Your task to perform on an android device: What is the recent news? Image 0: 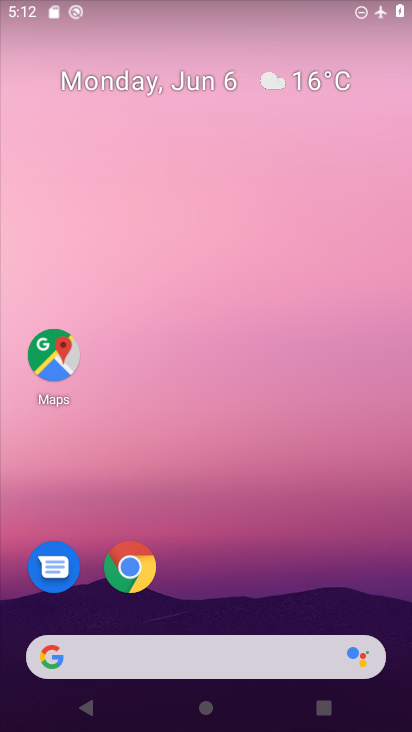
Step 0: drag from (198, 624) to (179, 270)
Your task to perform on an android device: What is the recent news? Image 1: 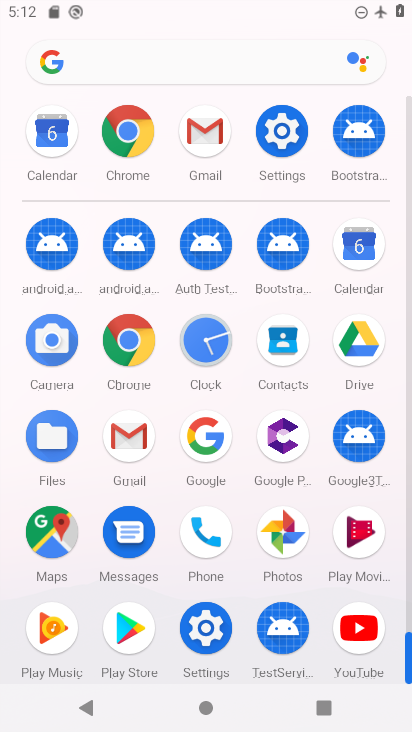
Step 1: task complete